Your task to perform on an android device: Go to internet settings Image 0: 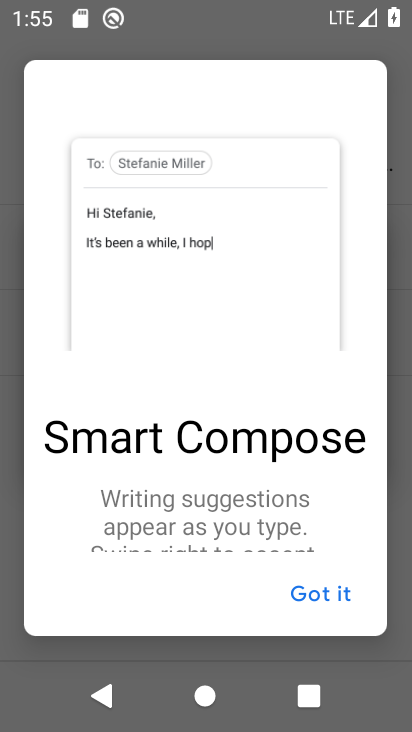
Step 0: press home button
Your task to perform on an android device: Go to internet settings Image 1: 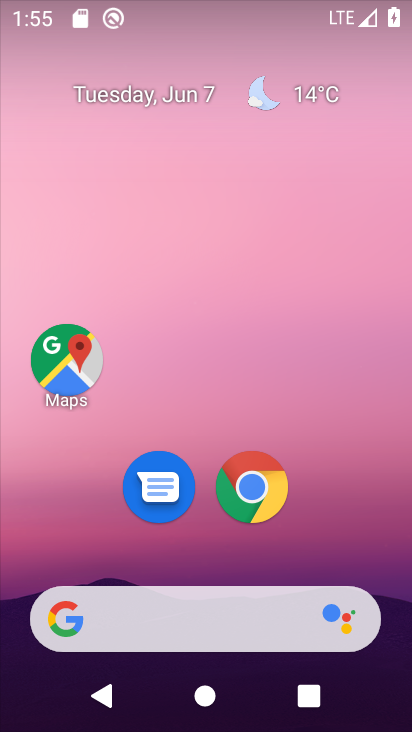
Step 1: drag from (214, 562) to (372, 482)
Your task to perform on an android device: Go to internet settings Image 2: 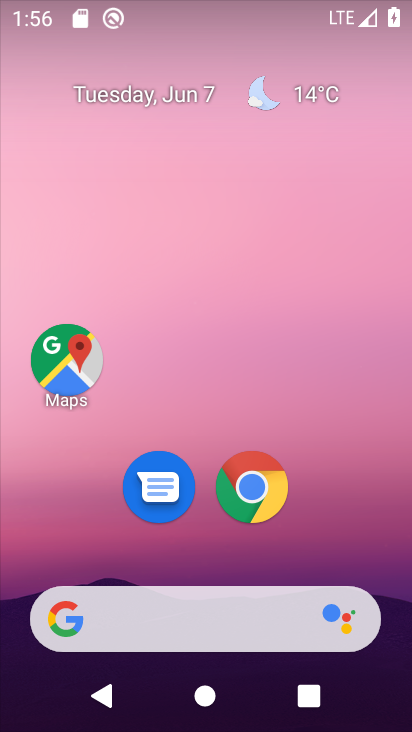
Step 2: drag from (219, 584) to (355, 47)
Your task to perform on an android device: Go to internet settings Image 3: 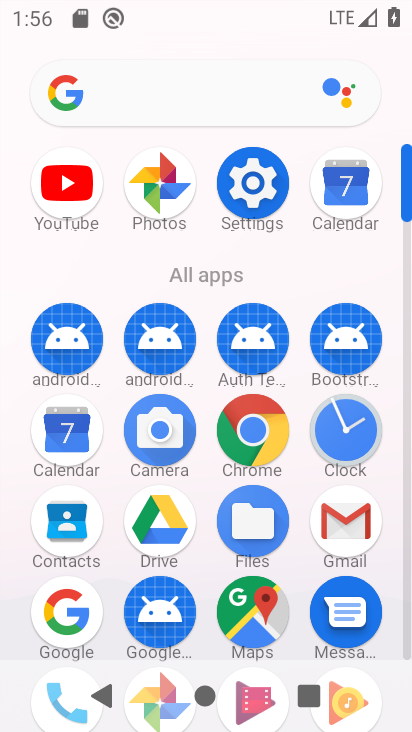
Step 3: click (278, 178)
Your task to perform on an android device: Go to internet settings Image 4: 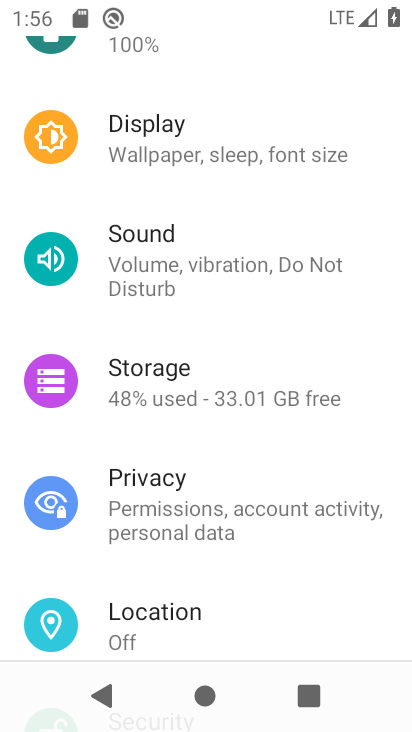
Step 4: drag from (127, 238) to (105, 689)
Your task to perform on an android device: Go to internet settings Image 5: 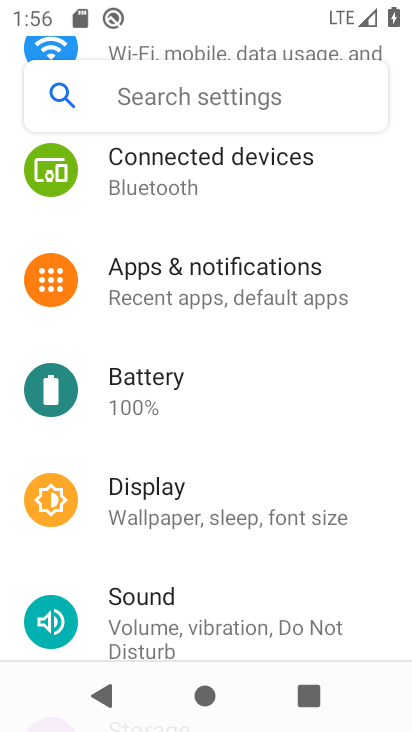
Step 5: drag from (161, 212) to (176, 569)
Your task to perform on an android device: Go to internet settings Image 6: 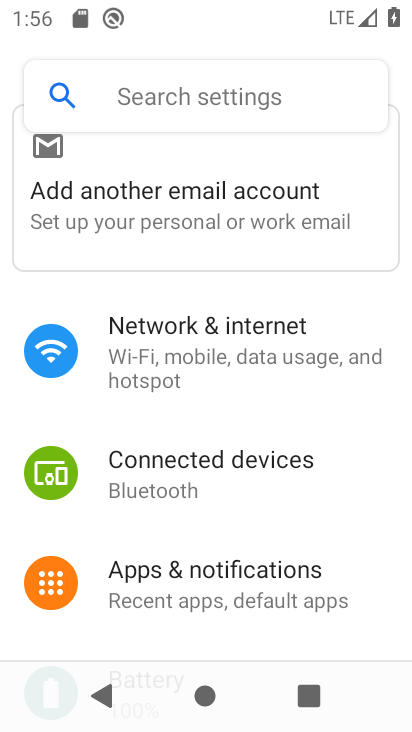
Step 6: click (242, 327)
Your task to perform on an android device: Go to internet settings Image 7: 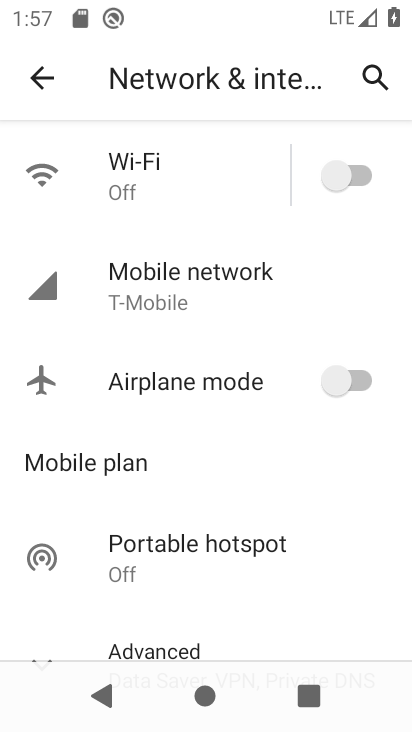
Step 7: click (217, 322)
Your task to perform on an android device: Go to internet settings Image 8: 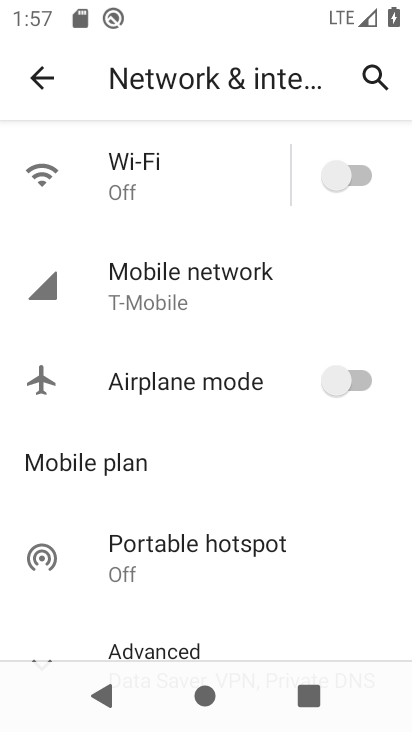
Step 8: task complete